Your task to perform on an android device: turn on bluetooth scan Image 0: 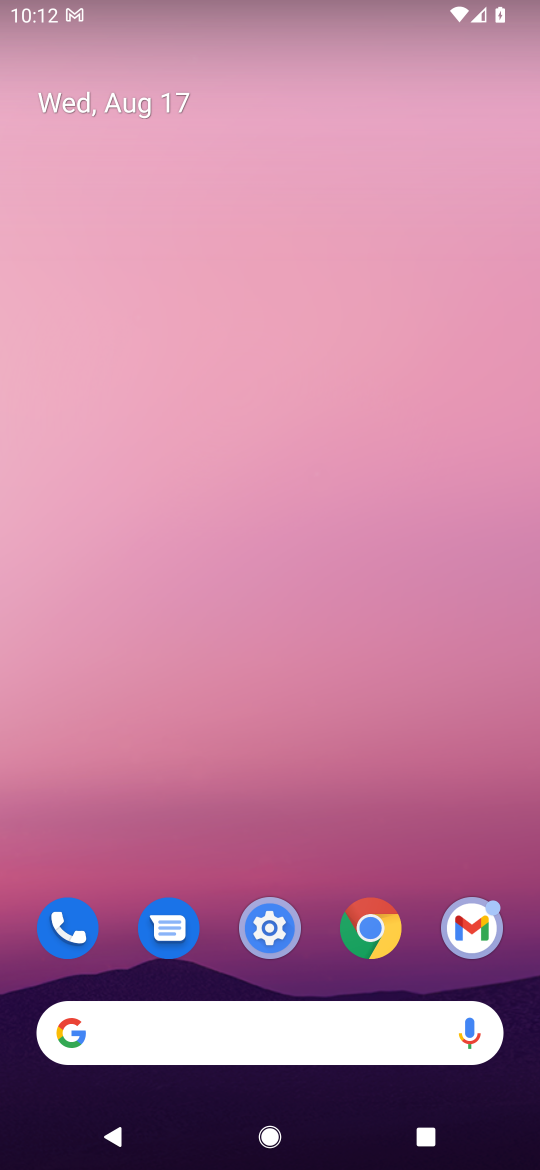
Step 0: drag from (384, 745) to (354, 211)
Your task to perform on an android device: turn on bluetooth scan Image 1: 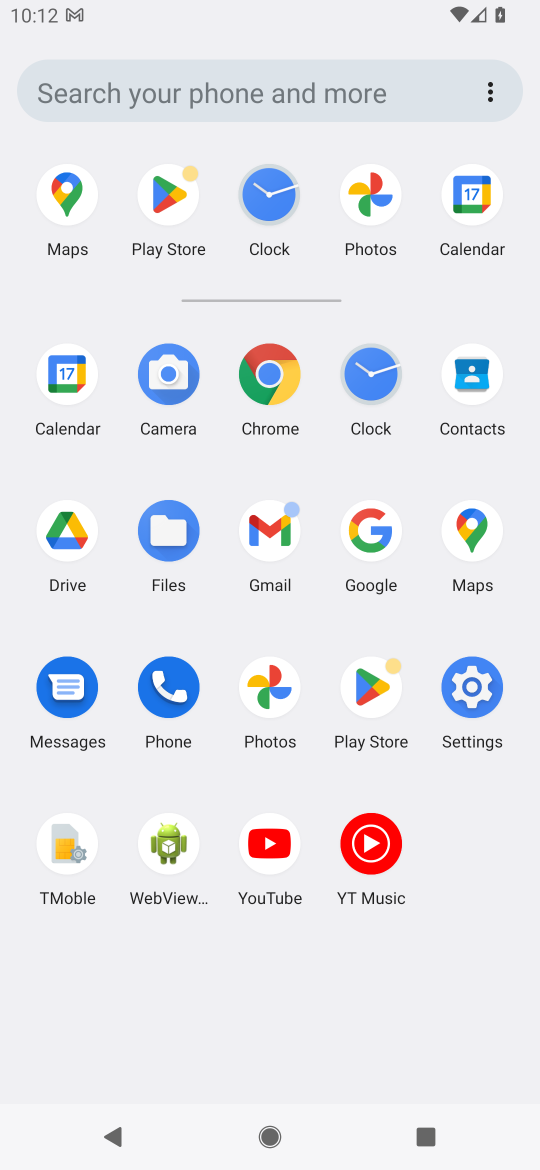
Step 1: click (470, 671)
Your task to perform on an android device: turn on bluetooth scan Image 2: 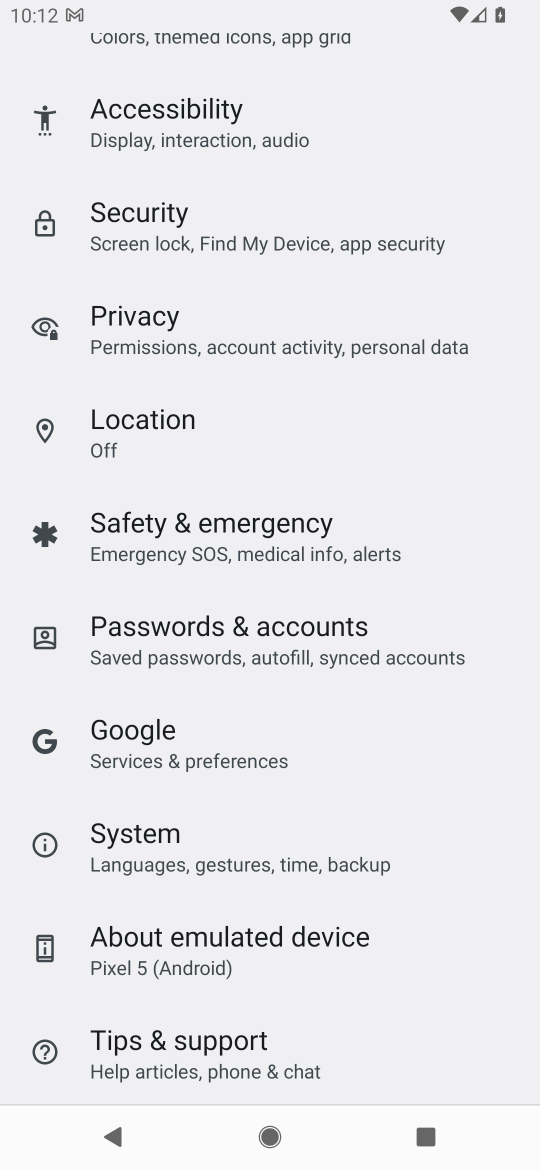
Step 2: drag from (230, 364) to (287, 841)
Your task to perform on an android device: turn on bluetooth scan Image 3: 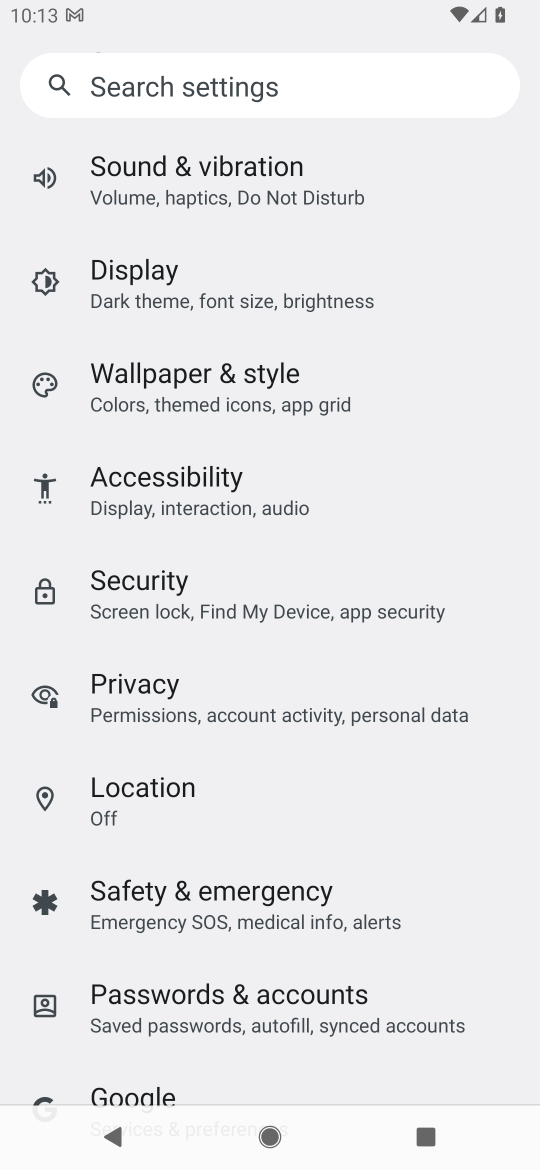
Step 3: drag from (268, 803) to (186, 430)
Your task to perform on an android device: turn on bluetooth scan Image 4: 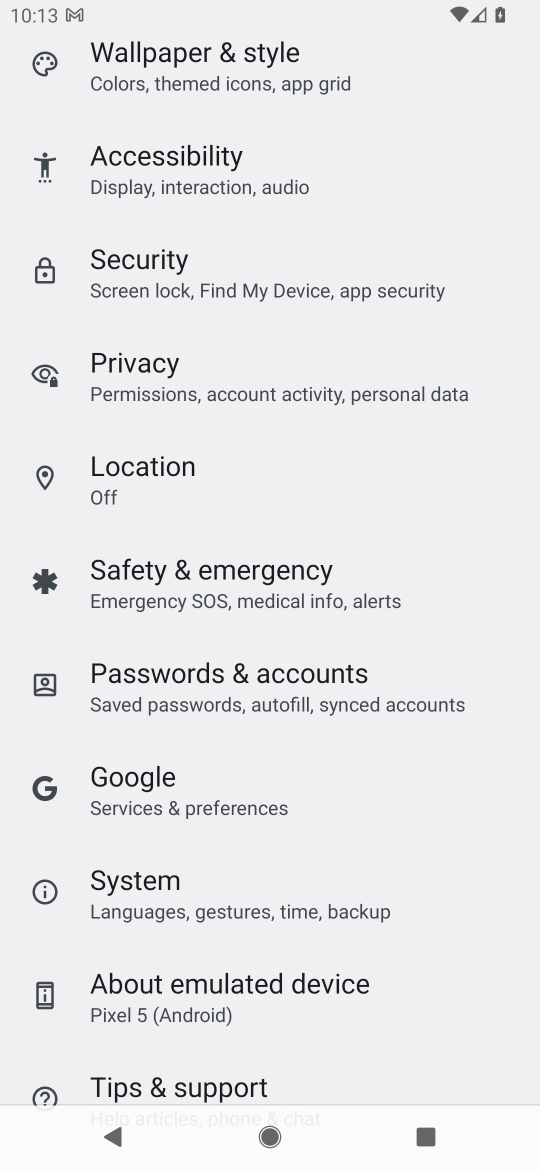
Step 4: click (156, 461)
Your task to perform on an android device: turn on bluetooth scan Image 5: 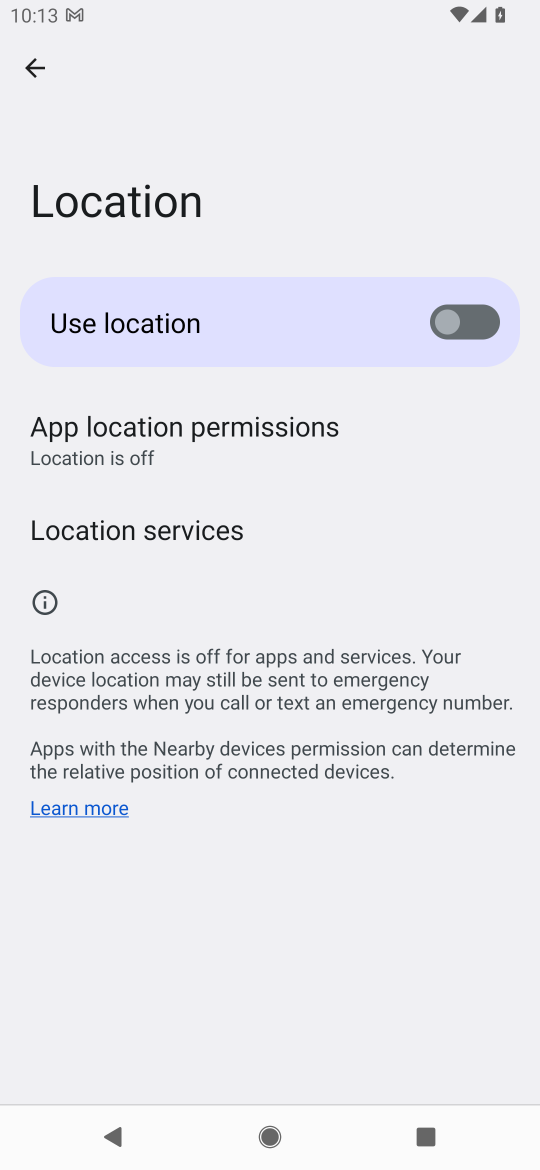
Step 5: click (225, 535)
Your task to perform on an android device: turn on bluetooth scan Image 6: 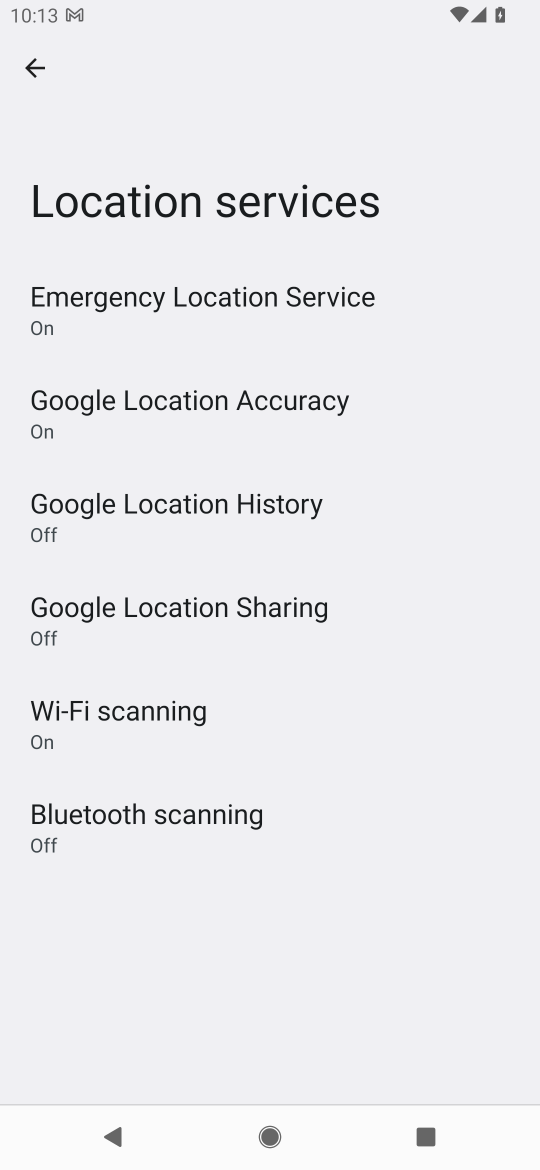
Step 6: click (240, 814)
Your task to perform on an android device: turn on bluetooth scan Image 7: 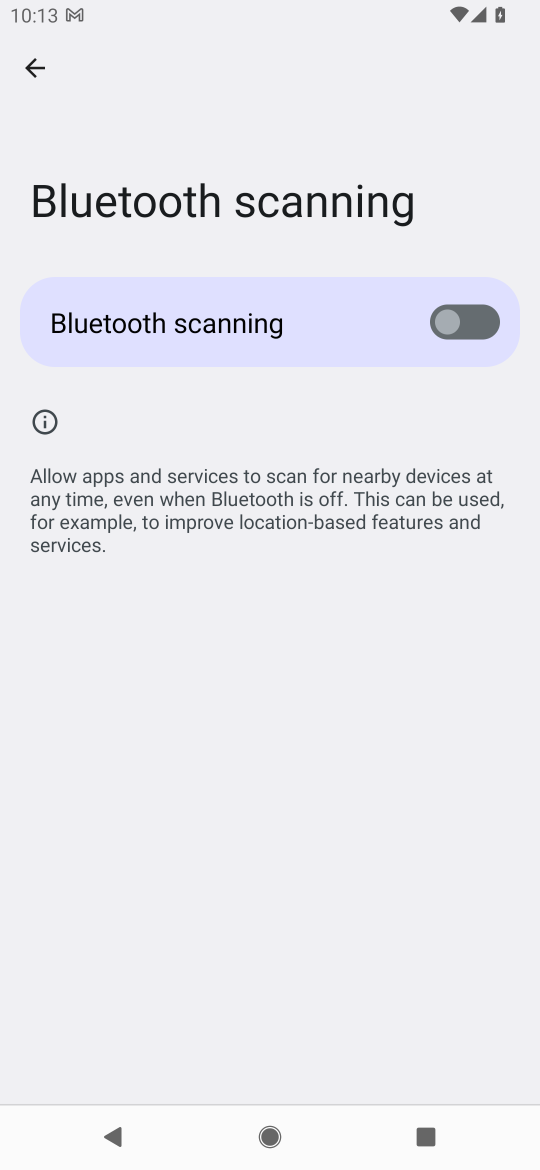
Step 7: click (467, 317)
Your task to perform on an android device: turn on bluetooth scan Image 8: 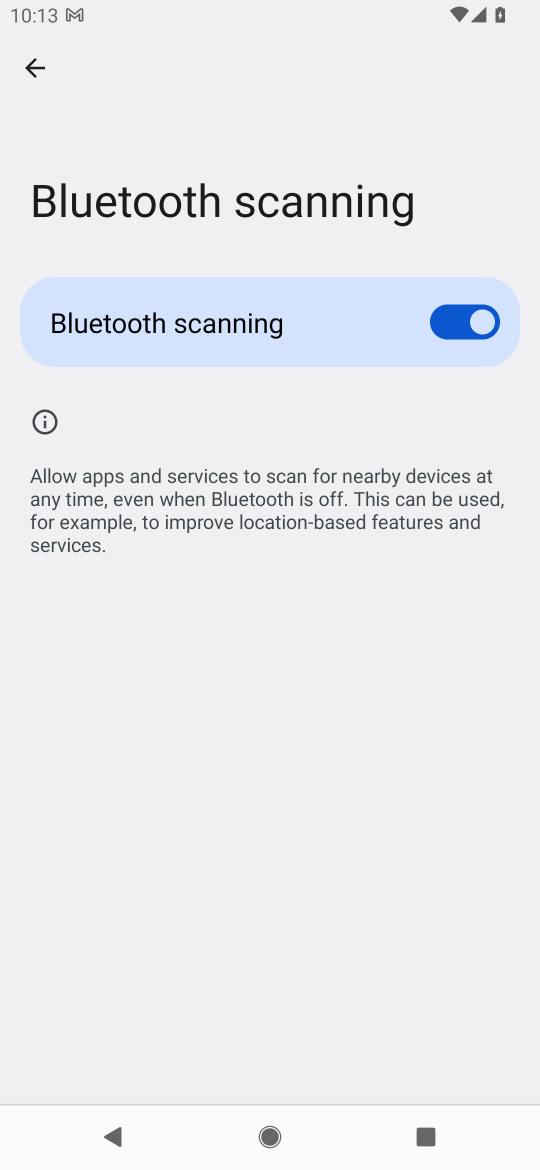
Step 8: task complete